Your task to perform on an android device: toggle wifi Image 0: 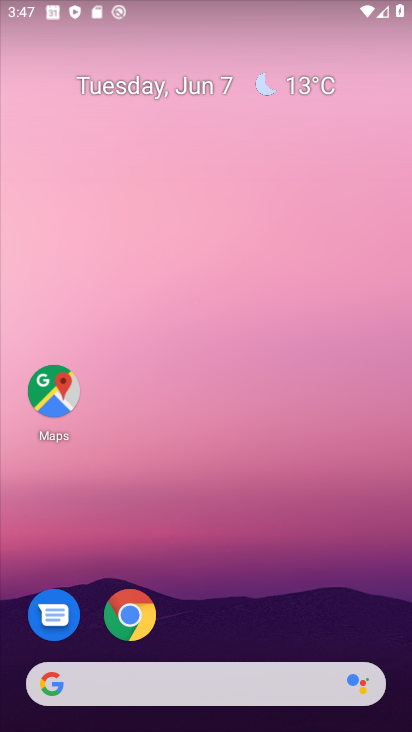
Step 0: drag from (221, 549) to (226, 67)
Your task to perform on an android device: toggle wifi Image 1: 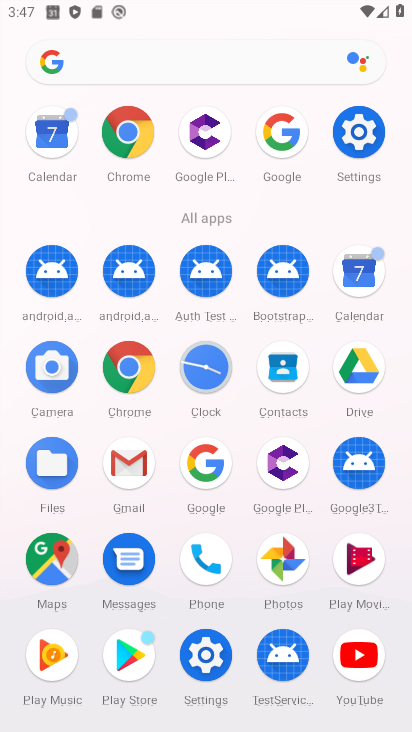
Step 1: click (344, 135)
Your task to perform on an android device: toggle wifi Image 2: 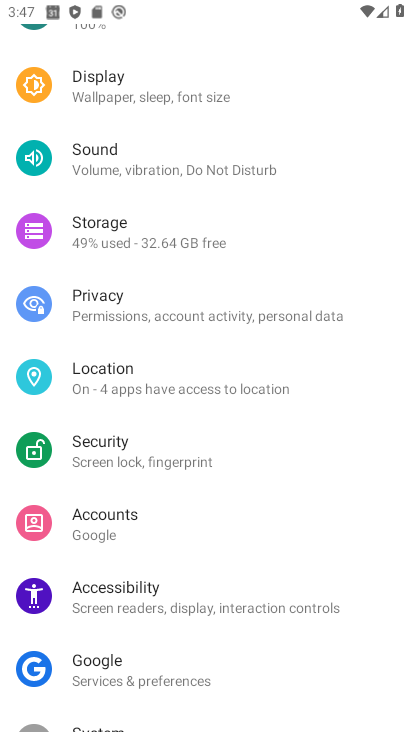
Step 2: drag from (171, 135) to (184, 491)
Your task to perform on an android device: toggle wifi Image 3: 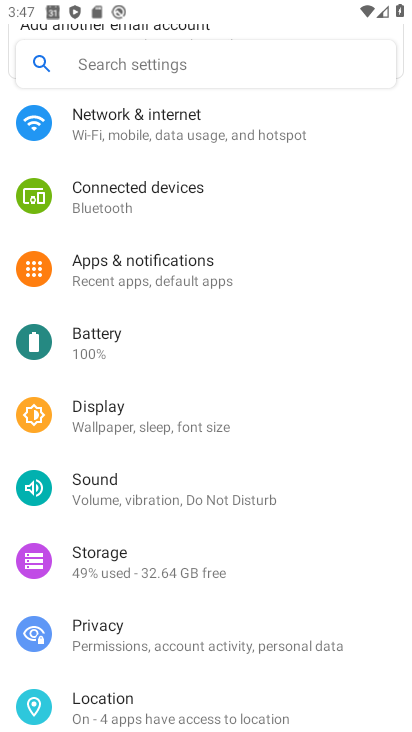
Step 3: drag from (190, 162) to (195, 591)
Your task to perform on an android device: toggle wifi Image 4: 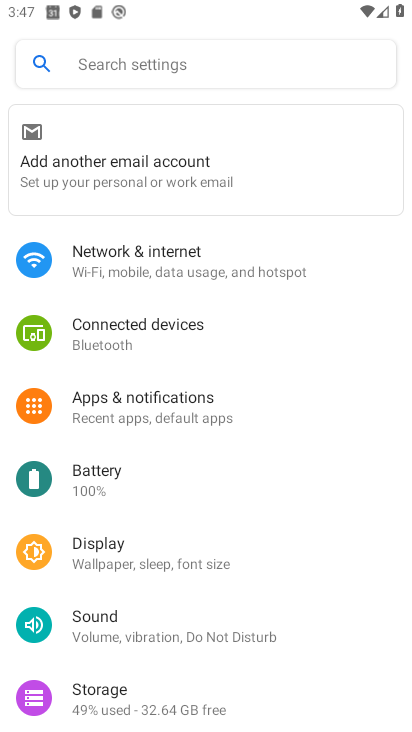
Step 4: click (119, 282)
Your task to perform on an android device: toggle wifi Image 5: 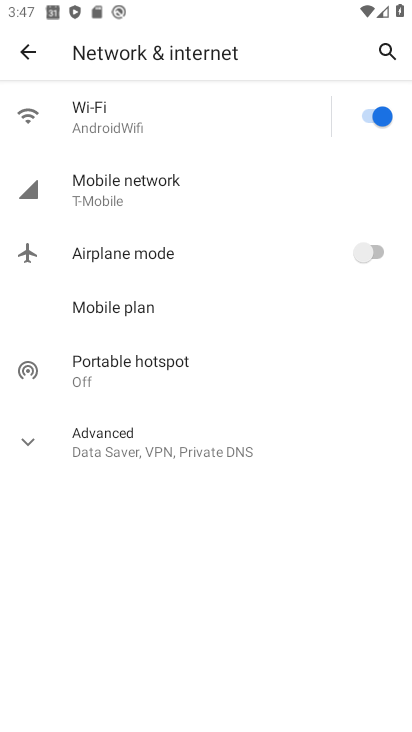
Step 5: click (364, 111)
Your task to perform on an android device: toggle wifi Image 6: 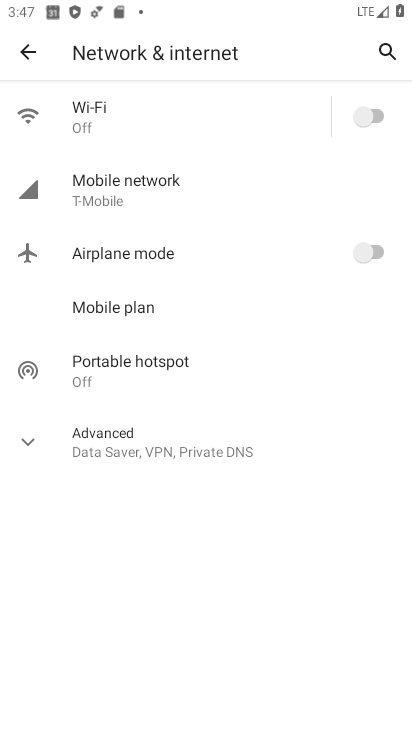
Step 6: task complete